Your task to perform on an android device: delete browsing data in the chrome app Image 0: 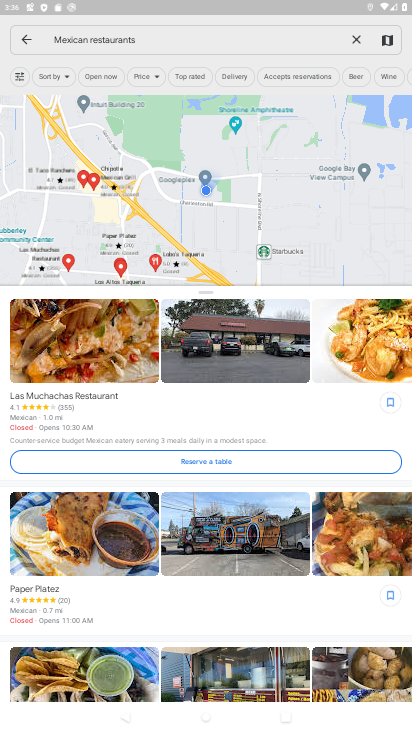
Step 0: press home button
Your task to perform on an android device: delete browsing data in the chrome app Image 1: 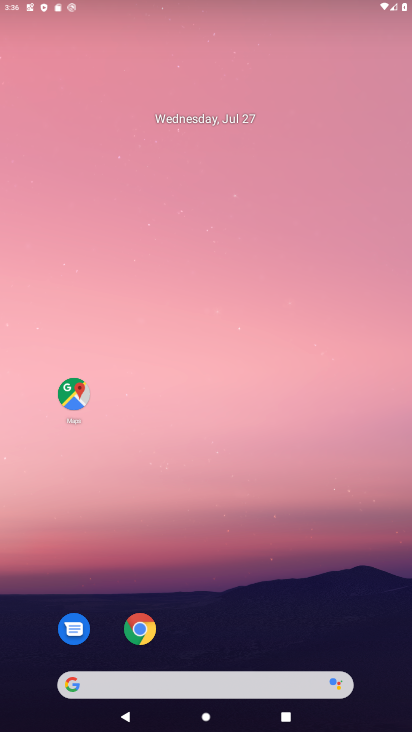
Step 1: drag from (284, 571) to (297, 28)
Your task to perform on an android device: delete browsing data in the chrome app Image 2: 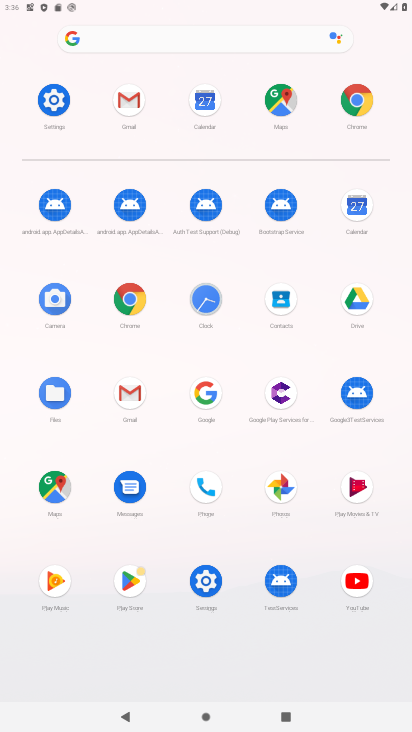
Step 2: click (355, 97)
Your task to perform on an android device: delete browsing data in the chrome app Image 3: 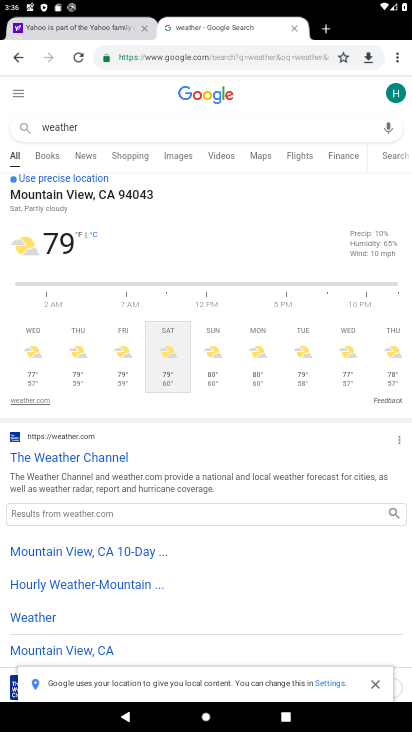
Step 3: drag from (392, 46) to (278, 362)
Your task to perform on an android device: delete browsing data in the chrome app Image 4: 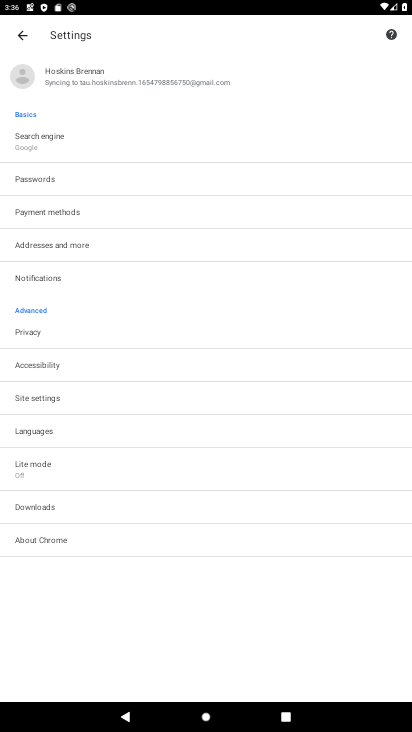
Step 4: click (15, 45)
Your task to perform on an android device: delete browsing data in the chrome app Image 5: 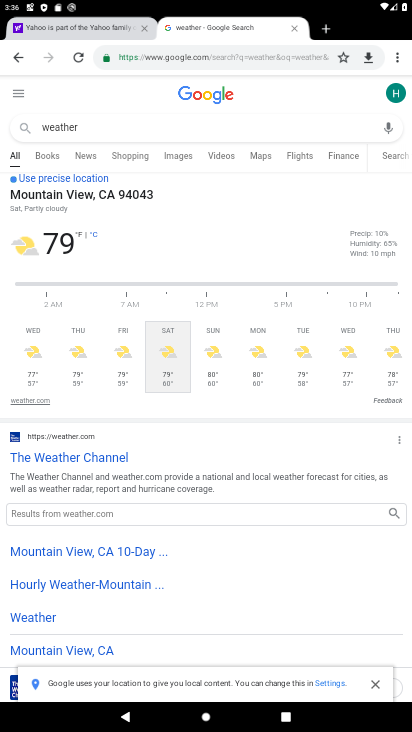
Step 5: drag from (397, 56) to (286, 171)
Your task to perform on an android device: delete browsing data in the chrome app Image 6: 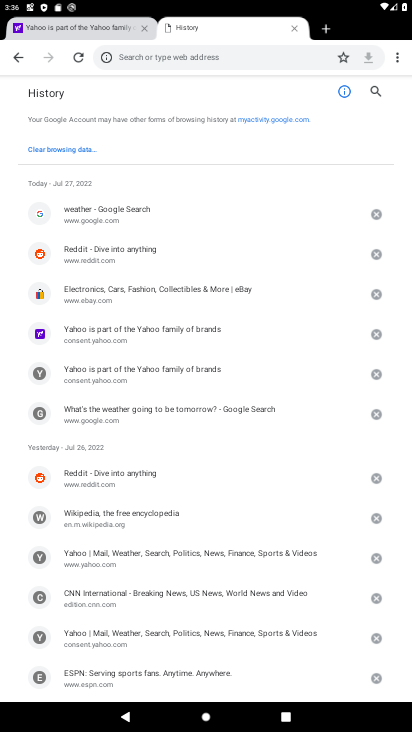
Step 6: click (58, 153)
Your task to perform on an android device: delete browsing data in the chrome app Image 7: 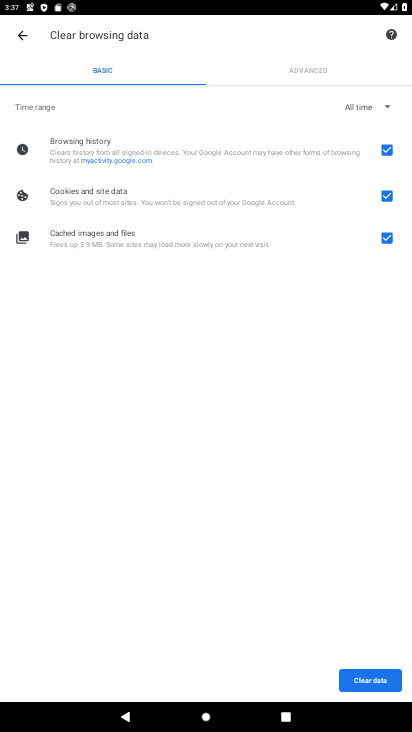
Step 7: click (373, 684)
Your task to perform on an android device: delete browsing data in the chrome app Image 8: 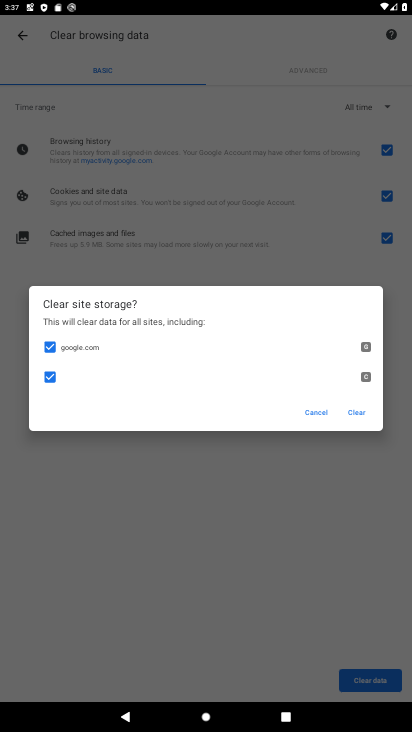
Step 8: click (364, 415)
Your task to perform on an android device: delete browsing data in the chrome app Image 9: 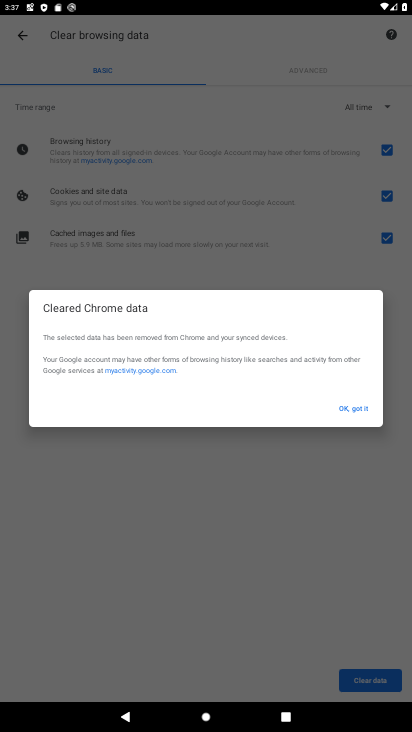
Step 9: task complete